Your task to perform on an android device: Go to display settings Image 0: 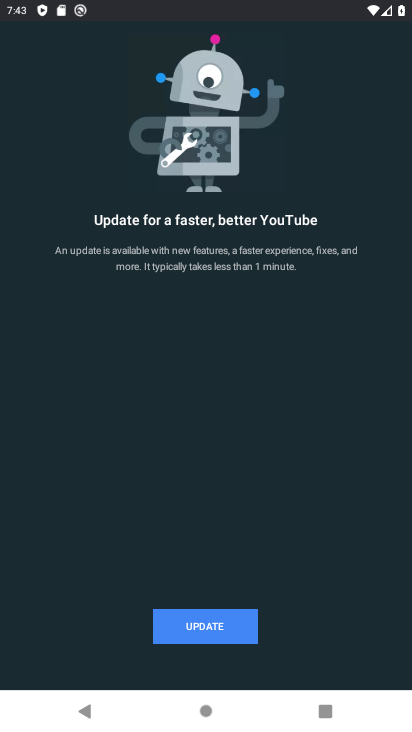
Step 0: press back button
Your task to perform on an android device: Go to display settings Image 1: 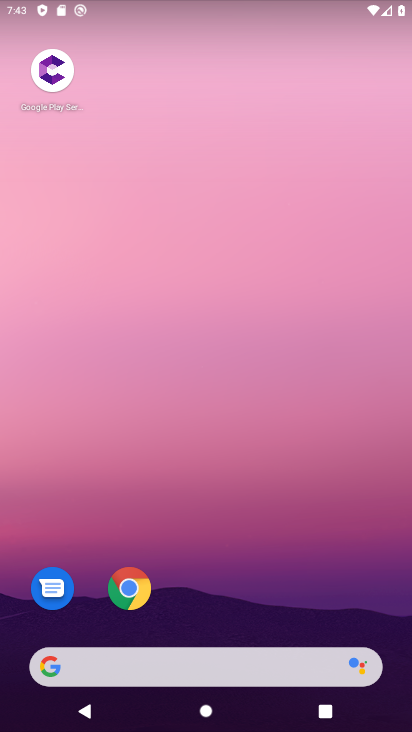
Step 1: drag from (369, 518) to (357, 208)
Your task to perform on an android device: Go to display settings Image 2: 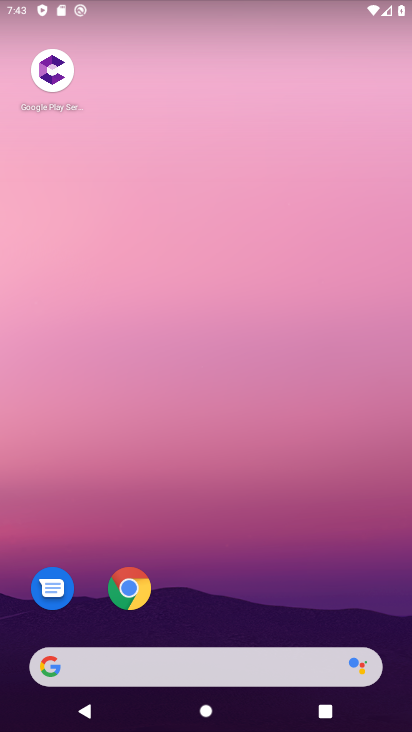
Step 2: drag from (393, 564) to (377, 288)
Your task to perform on an android device: Go to display settings Image 3: 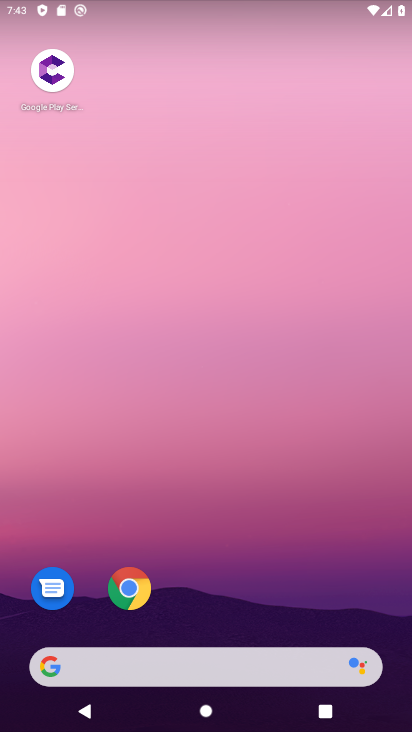
Step 3: drag from (399, 701) to (385, 237)
Your task to perform on an android device: Go to display settings Image 4: 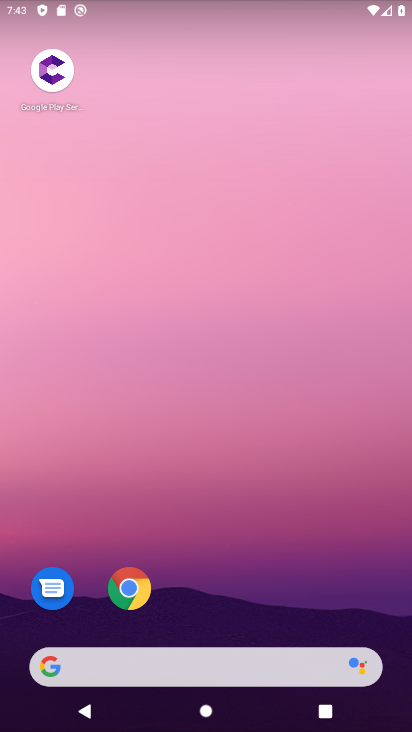
Step 4: drag from (384, 708) to (395, 335)
Your task to perform on an android device: Go to display settings Image 5: 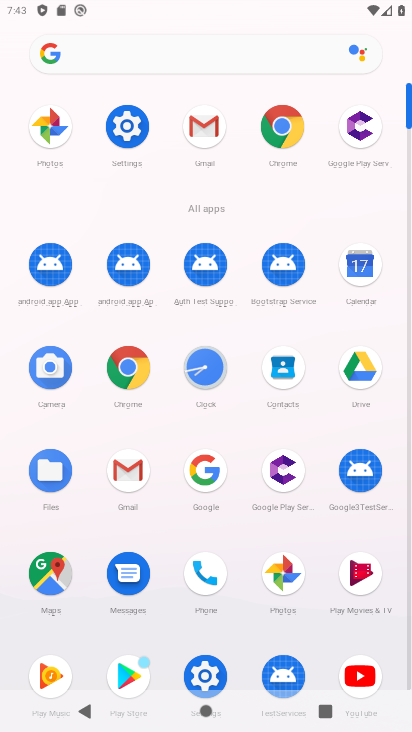
Step 5: click (207, 673)
Your task to perform on an android device: Go to display settings Image 6: 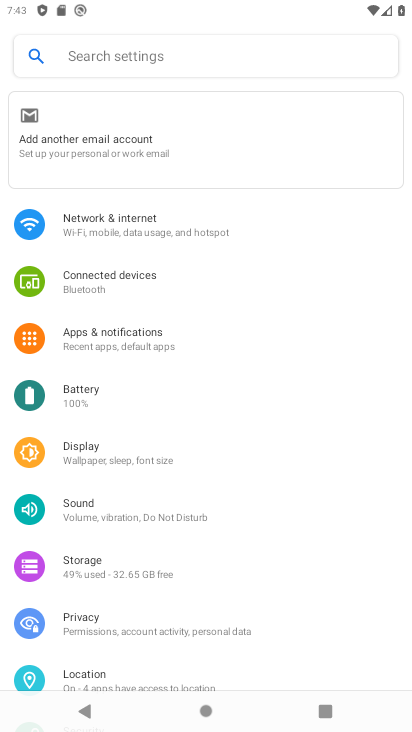
Step 6: click (94, 452)
Your task to perform on an android device: Go to display settings Image 7: 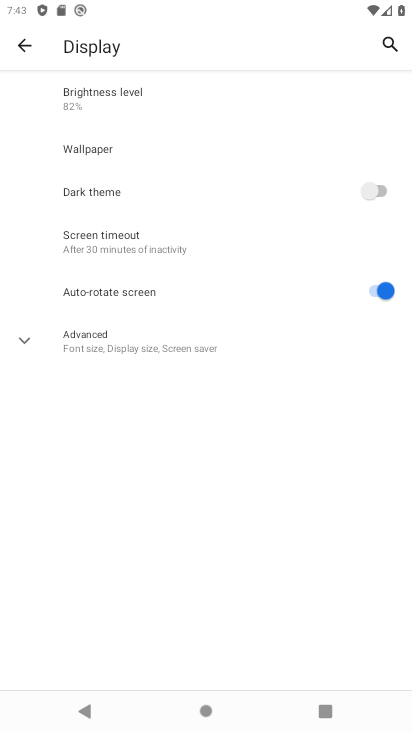
Step 7: task complete